Your task to perform on an android device: see sites visited before in the chrome app Image 0: 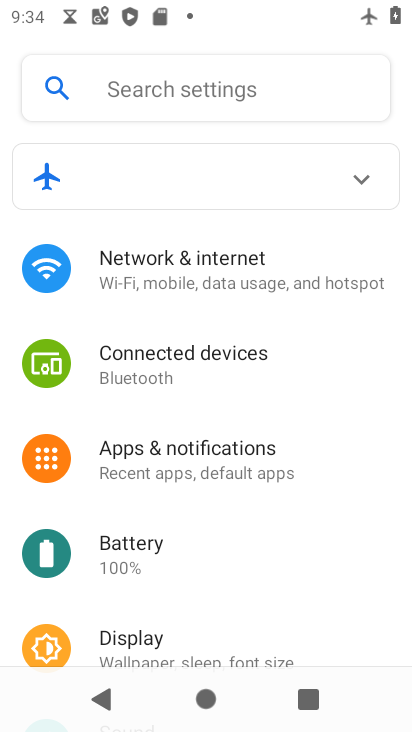
Step 0: press home button
Your task to perform on an android device: see sites visited before in the chrome app Image 1: 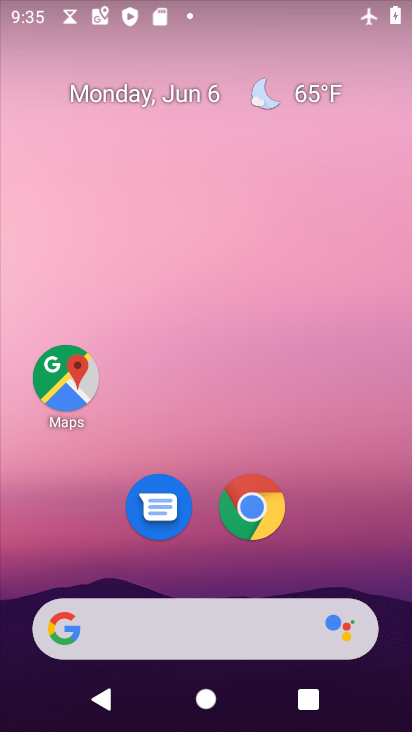
Step 1: click (260, 518)
Your task to perform on an android device: see sites visited before in the chrome app Image 2: 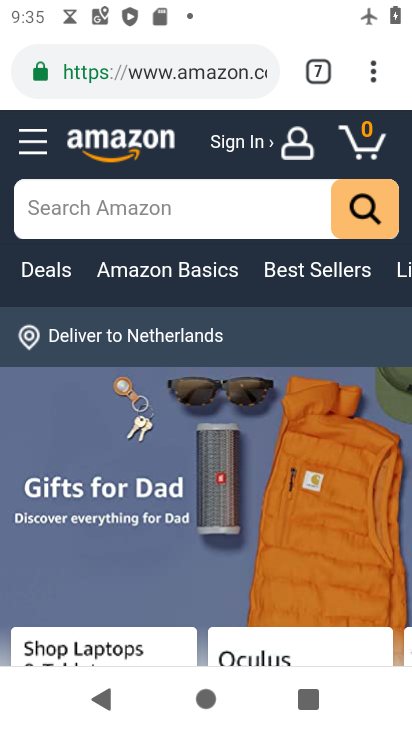
Step 2: click (377, 72)
Your task to perform on an android device: see sites visited before in the chrome app Image 3: 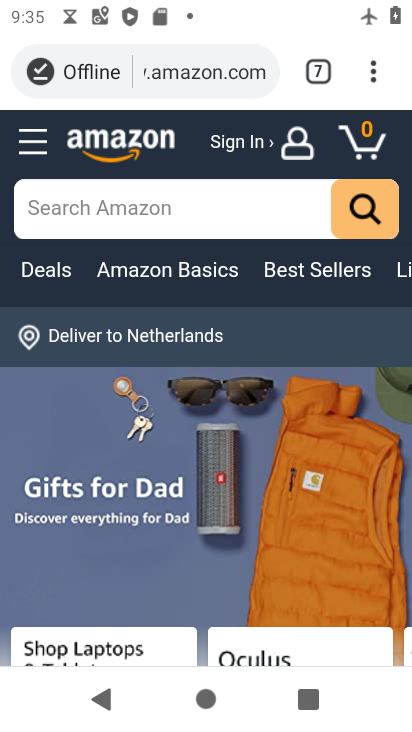
Step 3: click (379, 69)
Your task to perform on an android device: see sites visited before in the chrome app Image 4: 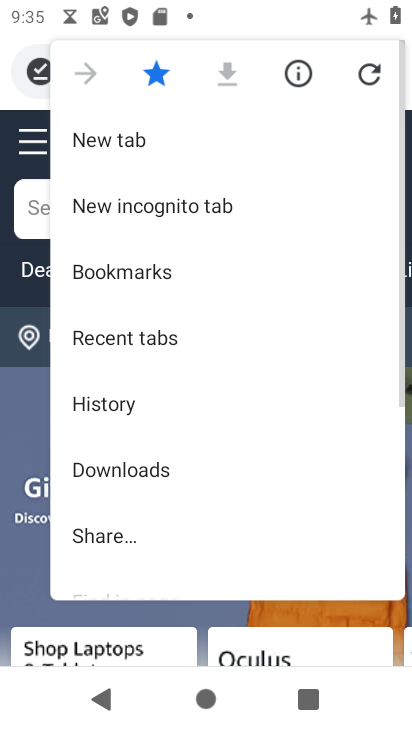
Step 4: click (117, 410)
Your task to perform on an android device: see sites visited before in the chrome app Image 5: 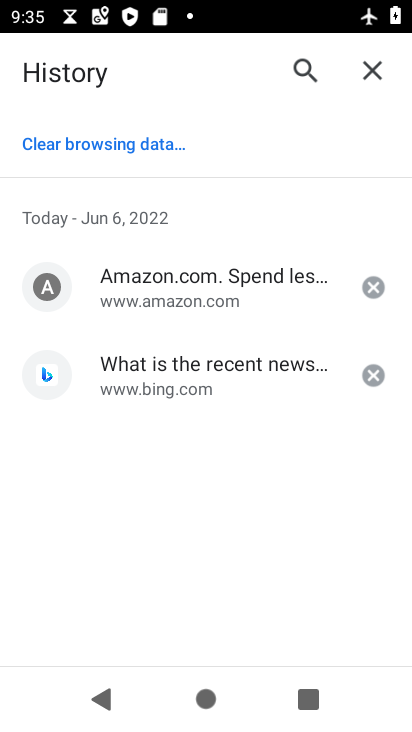
Step 5: task complete